Your task to perform on an android device: Open calendar and show me the third week of next month Image 0: 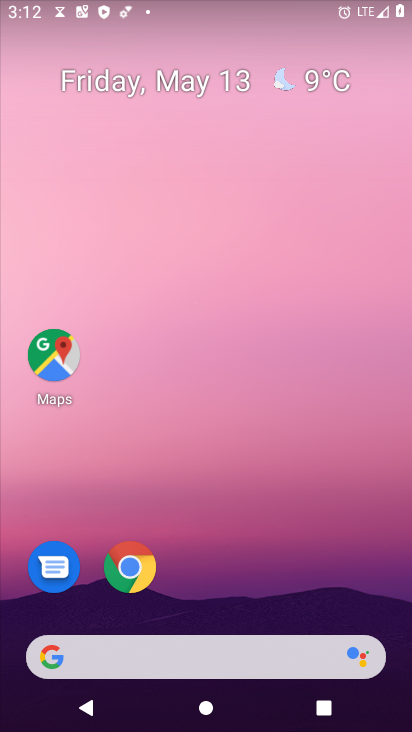
Step 0: drag from (318, 539) to (321, 0)
Your task to perform on an android device: Open calendar and show me the third week of next month Image 1: 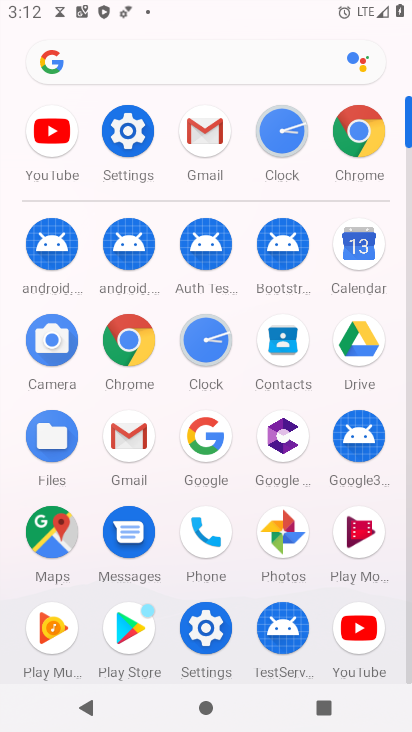
Step 1: click (365, 248)
Your task to perform on an android device: Open calendar and show me the third week of next month Image 2: 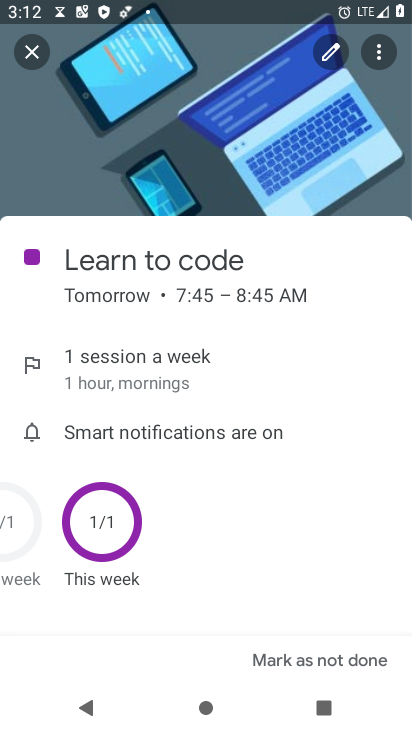
Step 2: click (31, 52)
Your task to perform on an android device: Open calendar and show me the third week of next month Image 3: 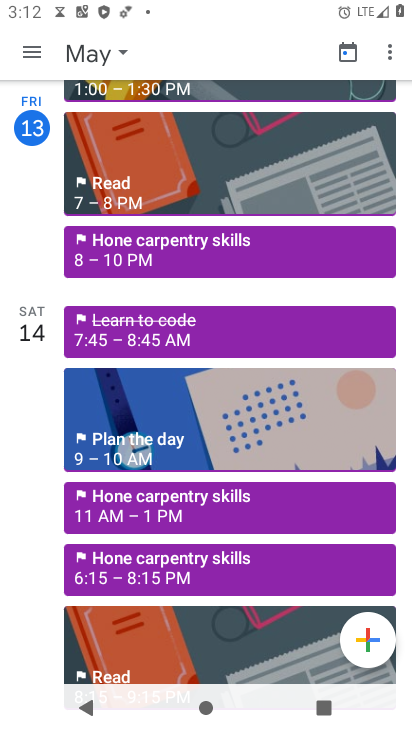
Step 3: click (118, 57)
Your task to perform on an android device: Open calendar and show me the third week of next month Image 4: 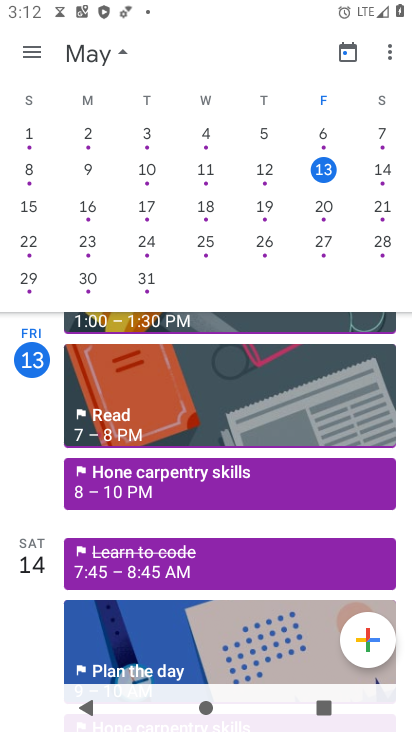
Step 4: drag from (152, 185) to (20, 173)
Your task to perform on an android device: Open calendar and show me the third week of next month Image 5: 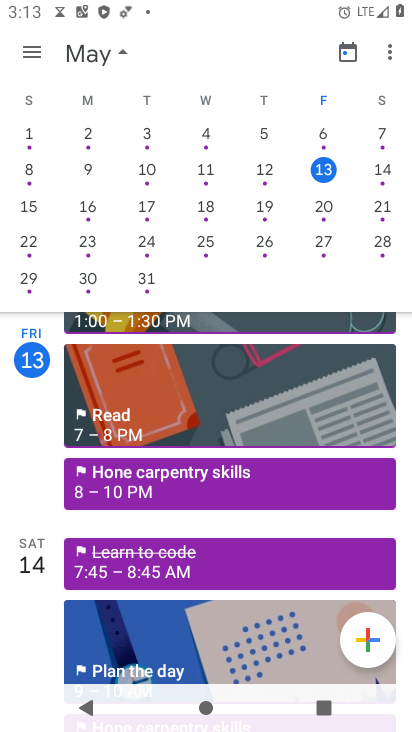
Step 5: drag from (350, 235) to (8, 121)
Your task to perform on an android device: Open calendar and show me the third week of next month Image 6: 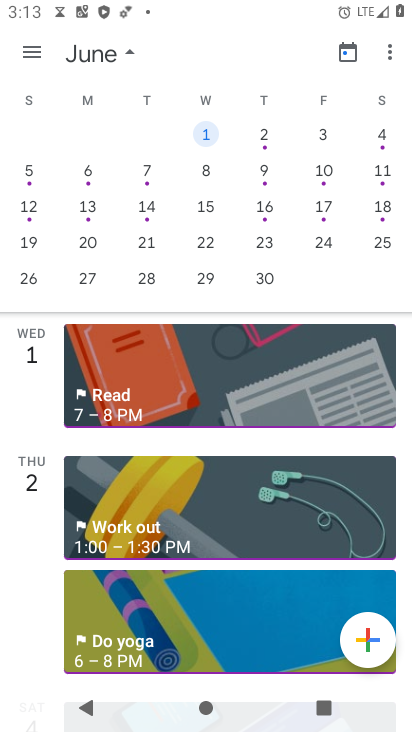
Step 6: click (31, 55)
Your task to perform on an android device: Open calendar and show me the third week of next month Image 7: 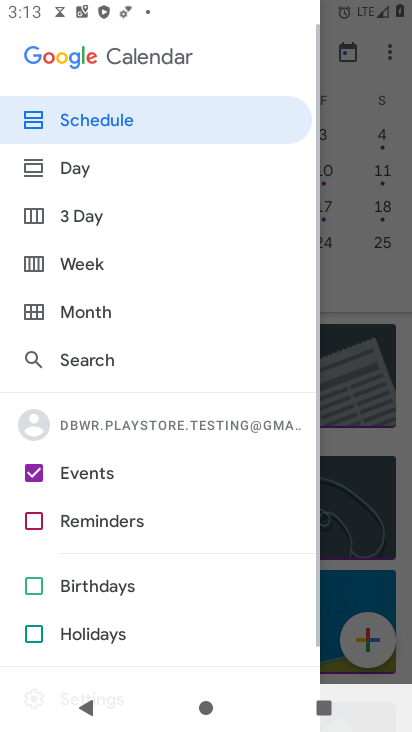
Step 7: click (50, 267)
Your task to perform on an android device: Open calendar and show me the third week of next month Image 8: 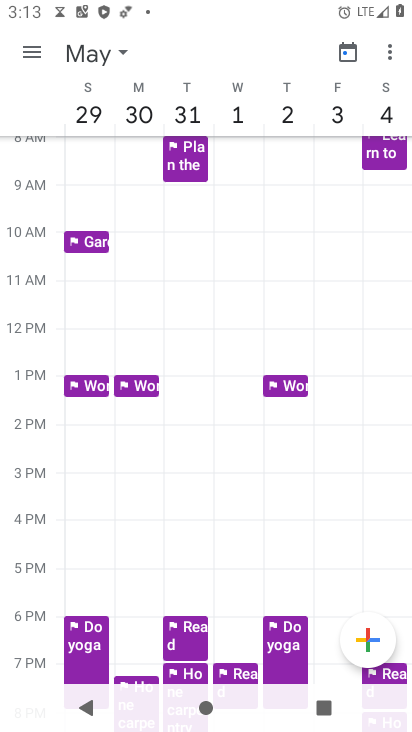
Step 8: task complete